Your task to perform on an android device: Show me productivity apps on the Play Store Image 0: 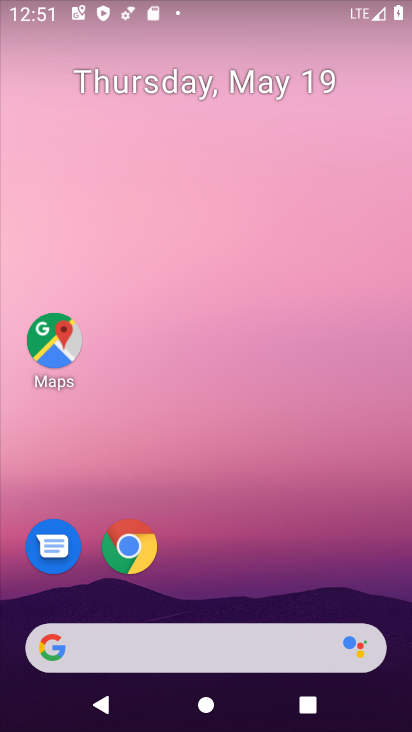
Step 0: drag from (267, 618) to (272, 46)
Your task to perform on an android device: Show me productivity apps on the Play Store Image 1: 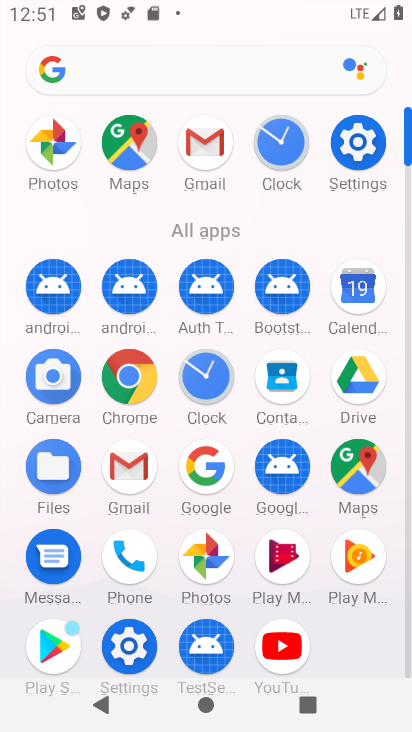
Step 1: click (49, 654)
Your task to perform on an android device: Show me productivity apps on the Play Store Image 2: 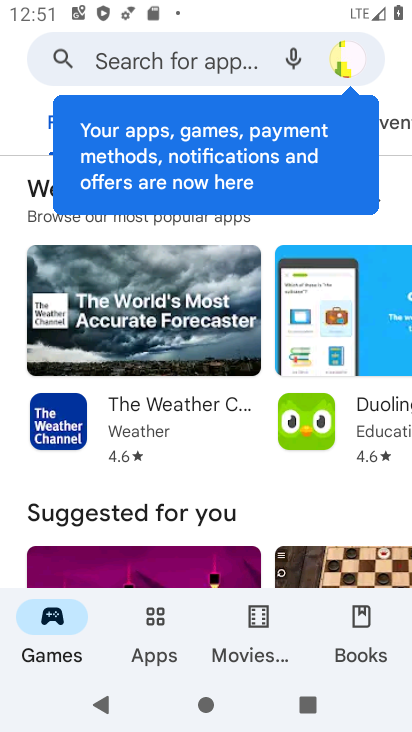
Step 2: click (164, 611)
Your task to perform on an android device: Show me productivity apps on the Play Store Image 3: 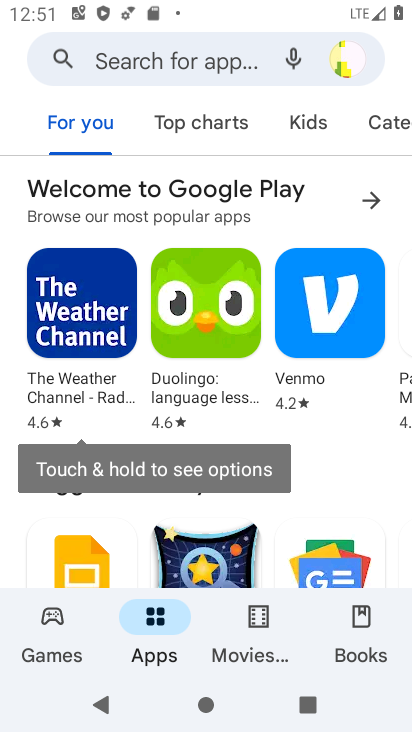
Step 3: click (400, 119)
Your task to perform on an android device: Show me productivity apps on the Play Store Image 4: 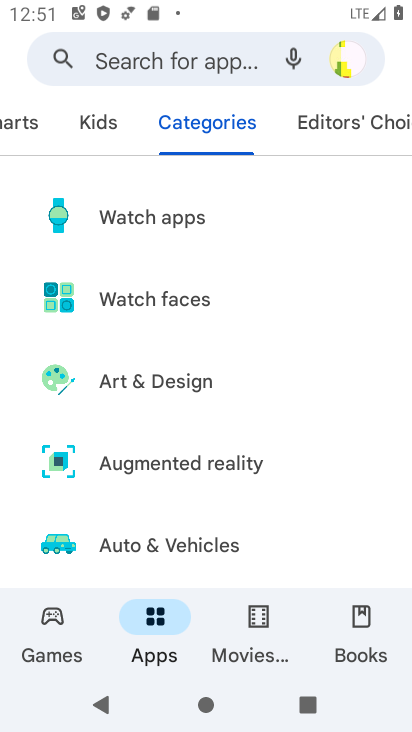
Step 4: drag from (115, 542) to (191, 4)
Your task to perform on an android device: Show me productivity apps on the Play Store Image 5: 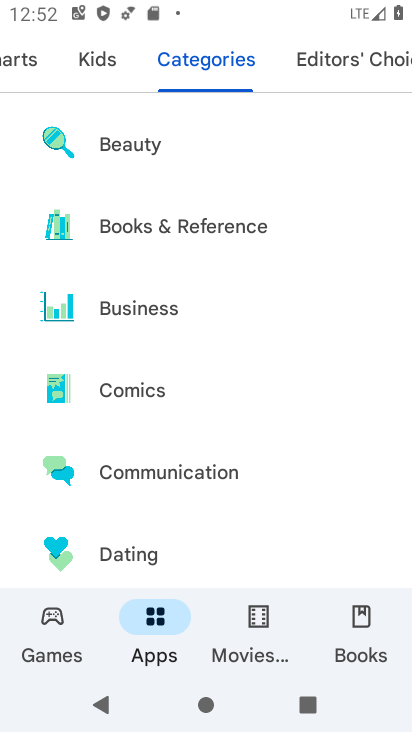
Step 5: drag from (121, 535) to (201, 142)
Your task to perform on an android device: Show me productivity apps on the Play Store Image 6: 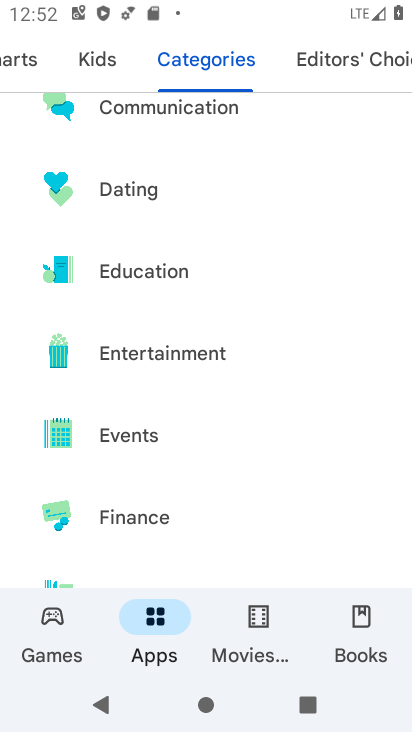
Step 6: drag from (89, 556) to (274, 27)
Your task to perform on an android device: Show me productivity apps on the Play Store Image 7: 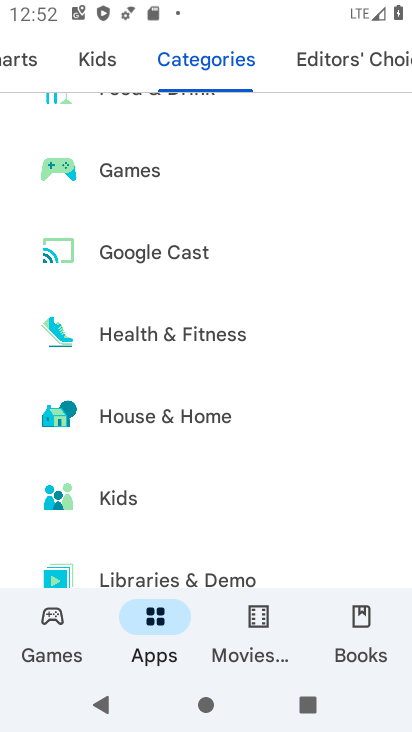
Step 7: drag from (168, 501) to (264, 76)
Your task to perform on an android device: Show me productivity apps on the Play Store Image 8: 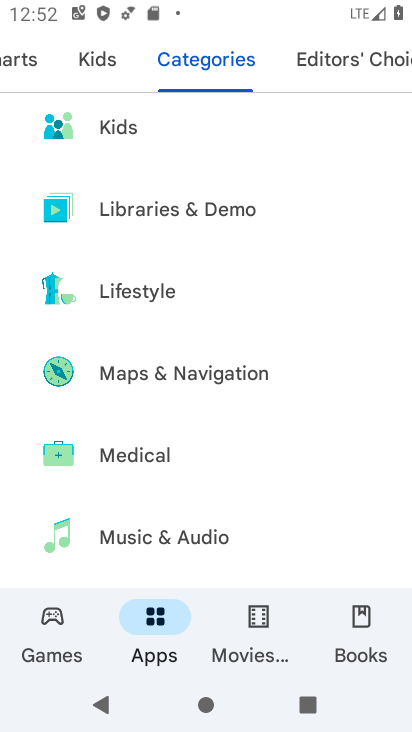
Step 8: drag from (111, 565) to (171, 100)
Your task to perform on an android device: Show me productivity apps on the Play Store Image 9: 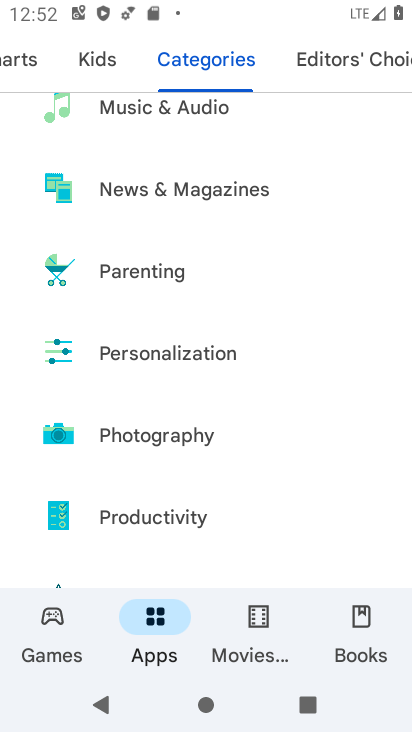
Step 9: click (118, 514)
Your task to perform on an android device: Show me productivity apps on the Play Store Image 10: 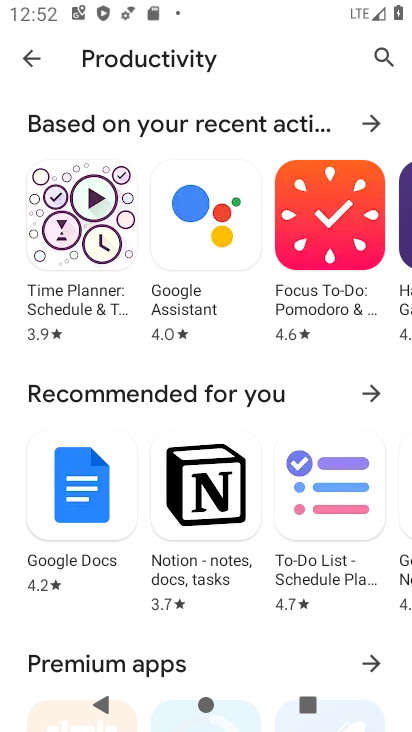
Step 10: task complete